Your task to perform on an android device: turn pop-ups on in chrome Image 0: 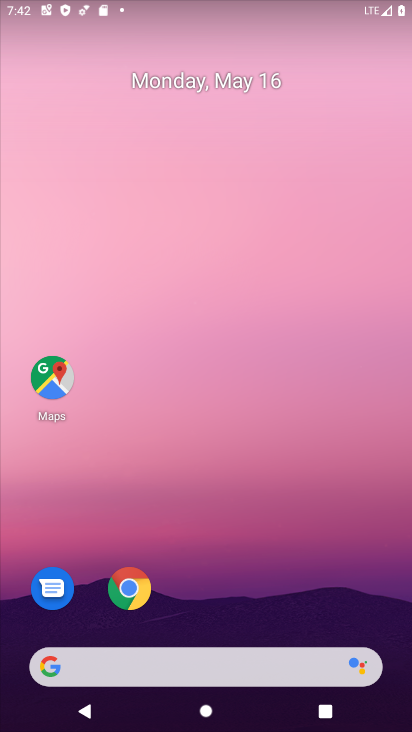
Step 0: drag from (217, 548) to (238, 78)
Your task to perform on an android device: turn pop-ups on in chrome Image 1: 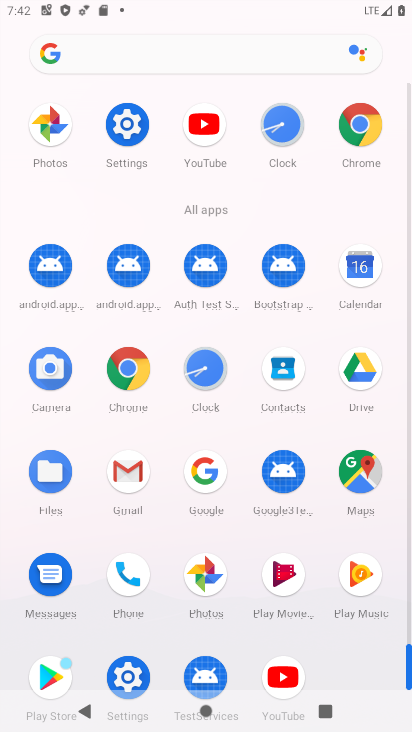
Step 1: click (128, 365)
Your task to perform on an android device: turn pop-ups on in chrome Image 2: 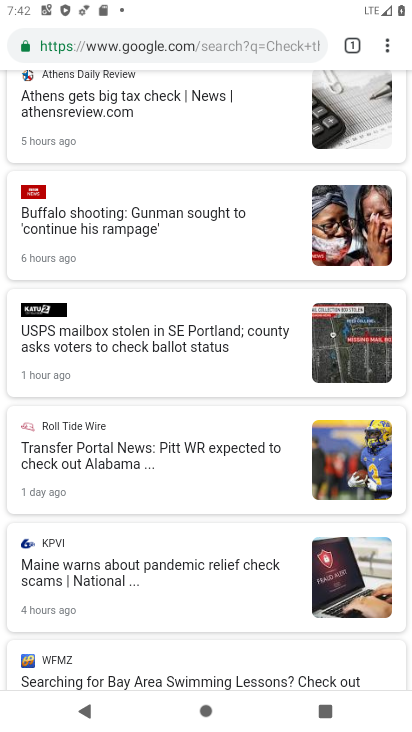
Step 2: drag from (387, 46) to (249, 497)
Your task to perform on an android device: turn pop-ups on in chrome Image 3: 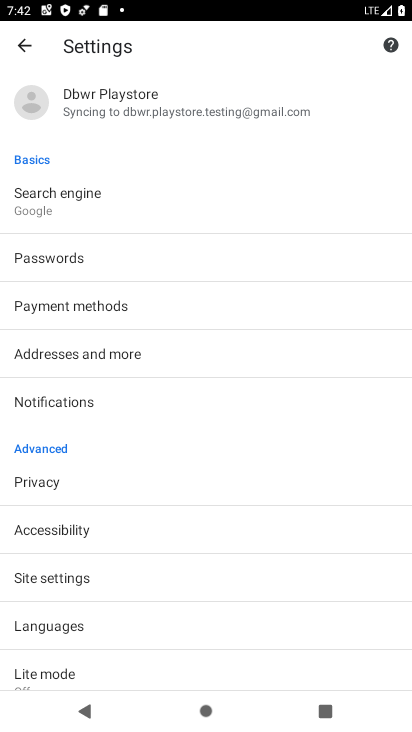
Step 3: drag from (251, 426) to (278, 203)
Your task to perform on an android device: turn pop-ups on in chrome Image 4: 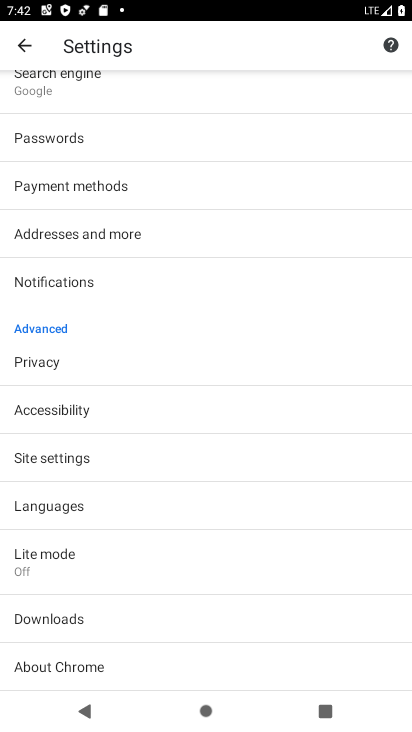
Step 4: click (107, 461)
Your task to perform on an android device: turn pop-ups on in chrome Image 5: 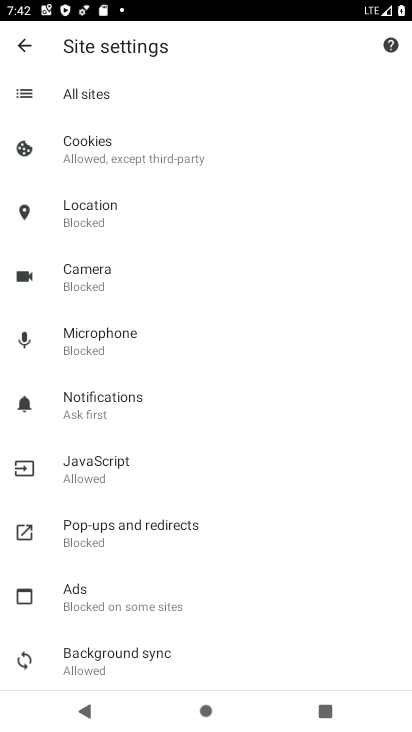
Step 5: click (111, 521)
Your task to perform on an android device: turn pop-ups on in chrome Image 6: 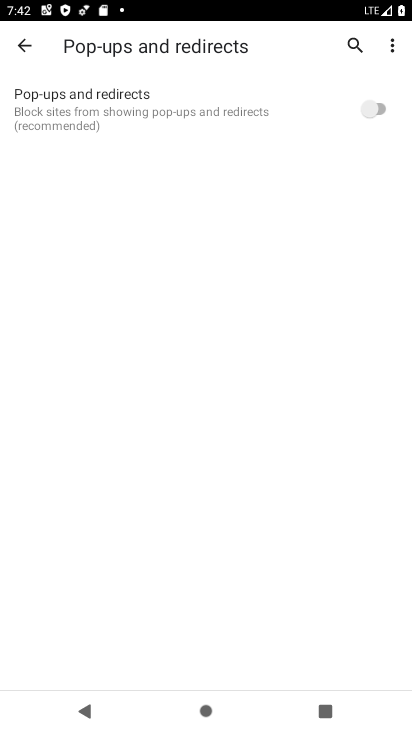
Step 6: click (371, 106)
Your task to perform on an android device: turn pop-ups on in chrome Image 7: 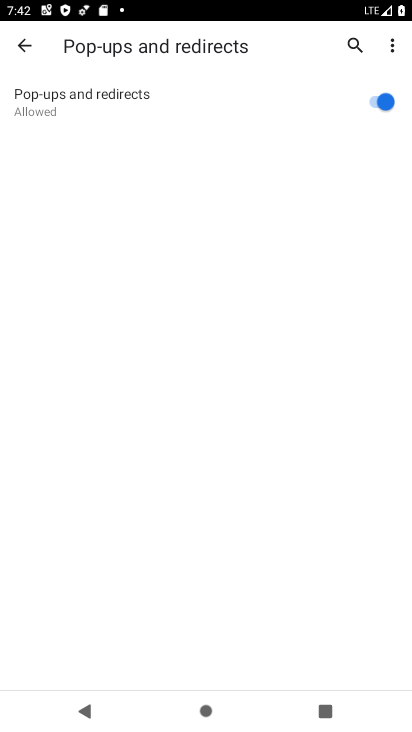
Step 7: task complete